Your task to perform on an android device: Add duracell triple a to the cart on newegg.com, then select checkout. Image 0: 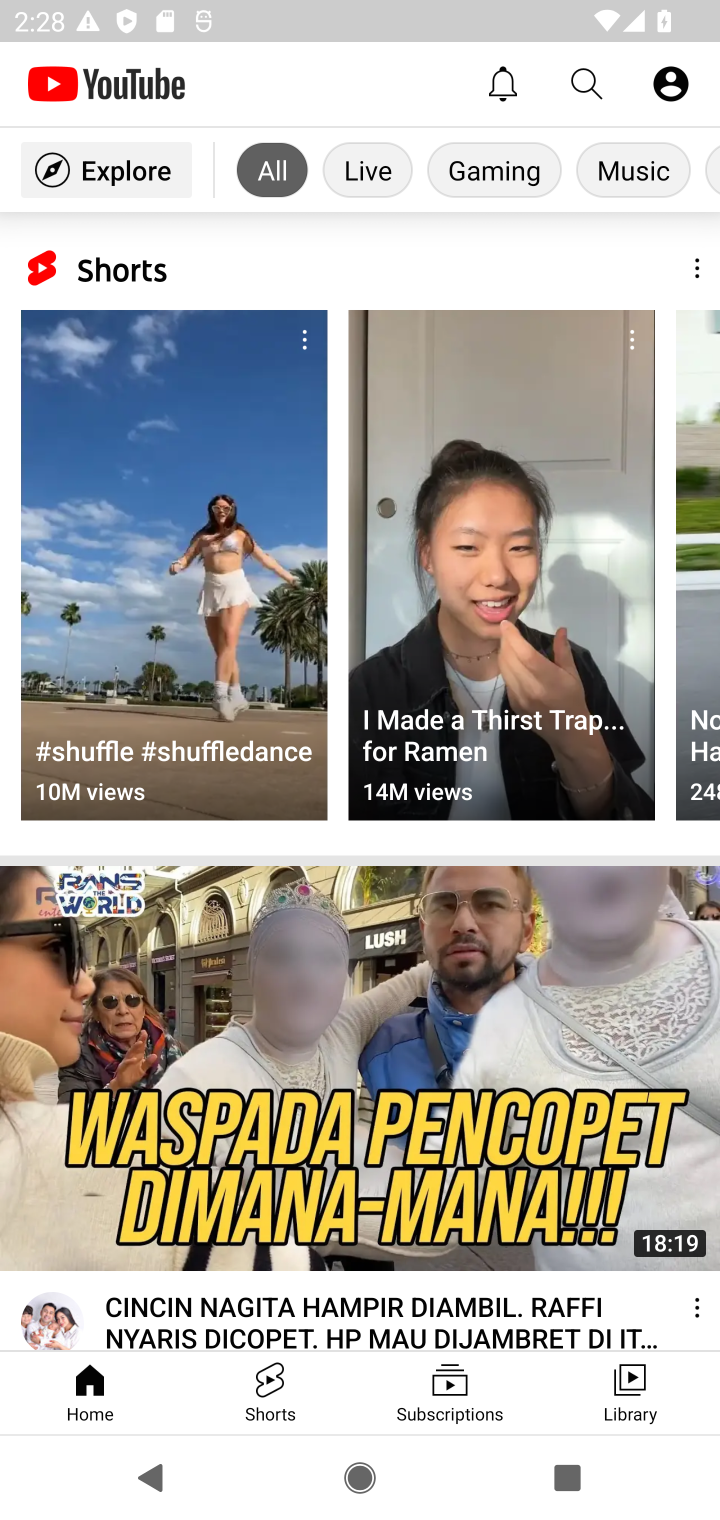
Step 0: press home button
Your task to perform on an android device: Add duracell triple a to the cart on newegg.com, then select checkout. Image 1: 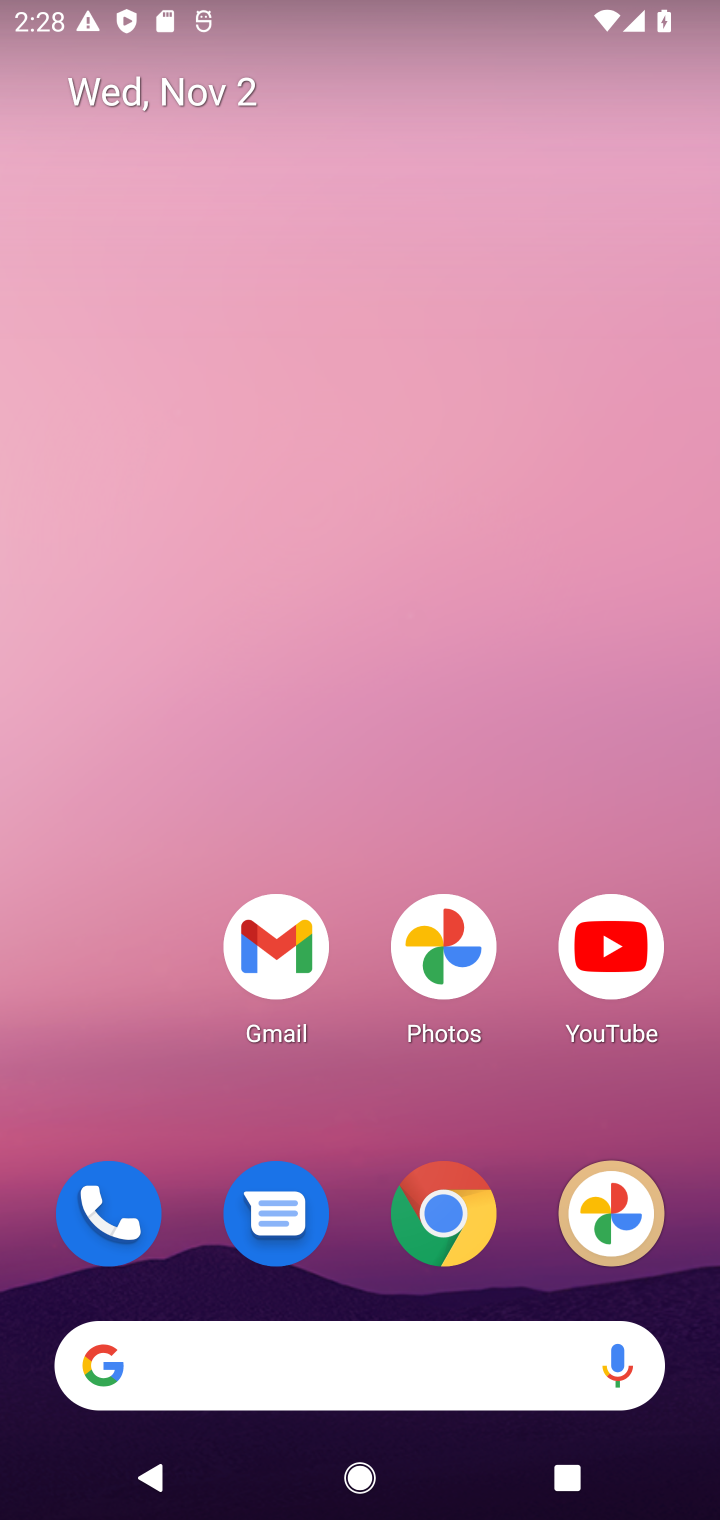
Step 1: click (446, 1224)
Your task to perform on an android device: Add duracell triple a to the cart on newegg.com, then select checkout. Image 2: 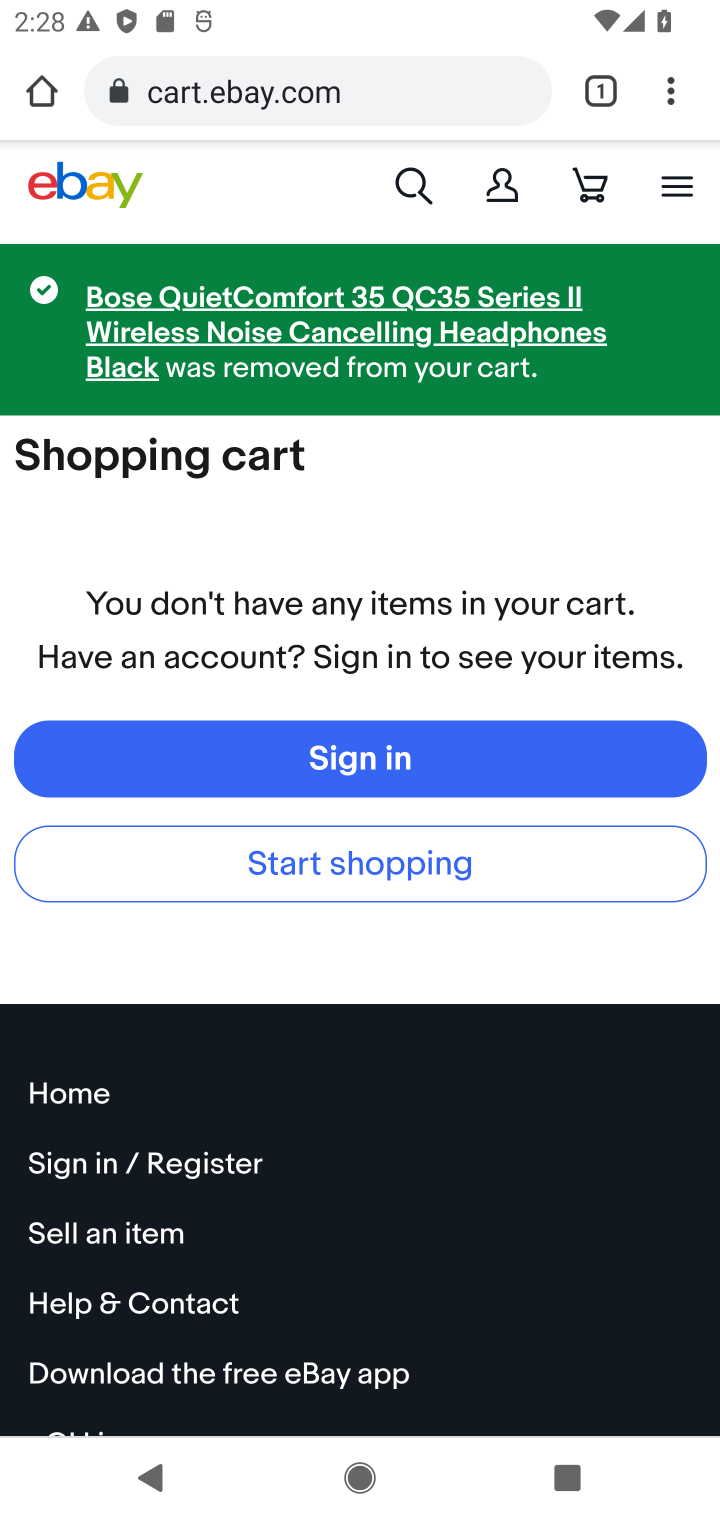
Step 2: click (430, 67)
Your task to perform on an android device: Add duracell triple a to the cart on newegg.com, then select checkout. Image 3: 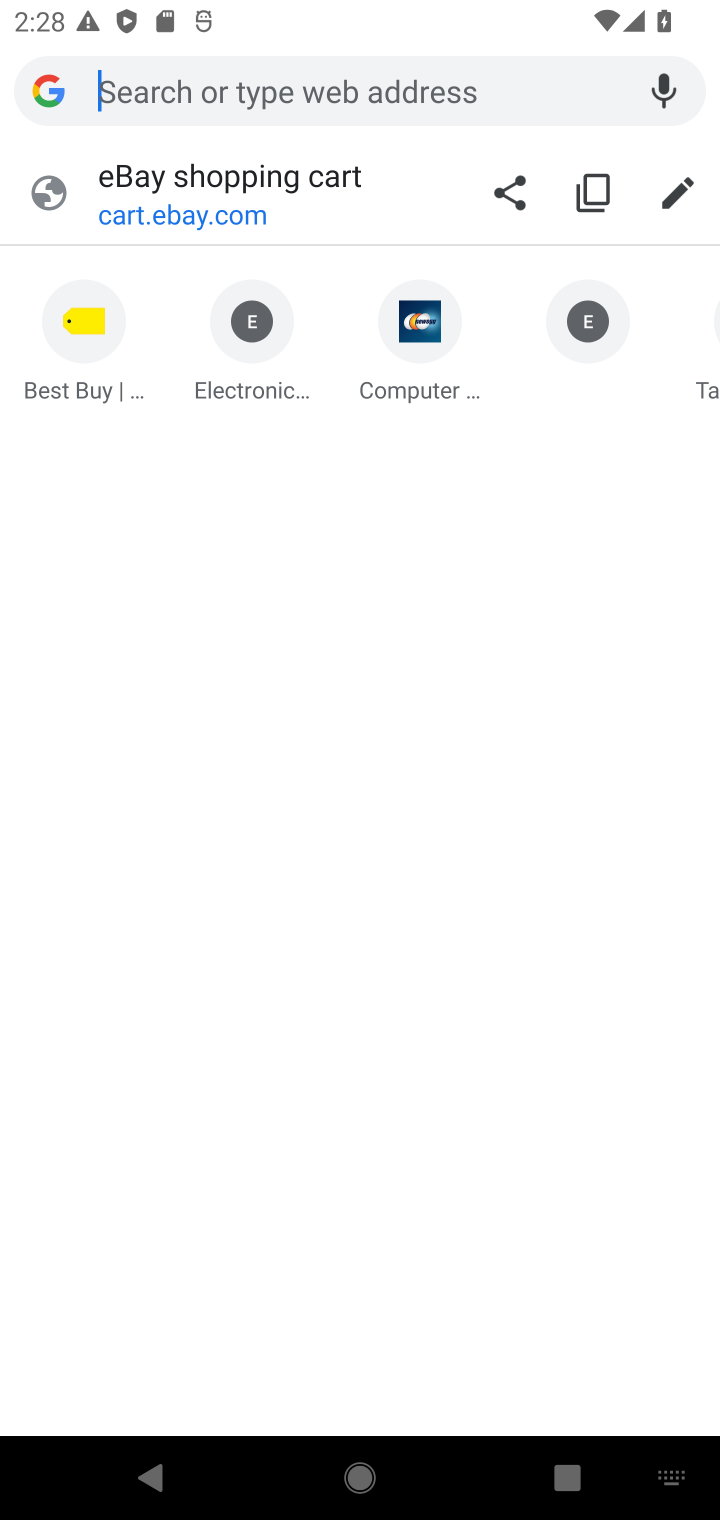
Step 3: type "newegg.com"
Your task to perform on an android device: Add duracell triple a to the cart on newegg.com, then select checkout. Image 4: 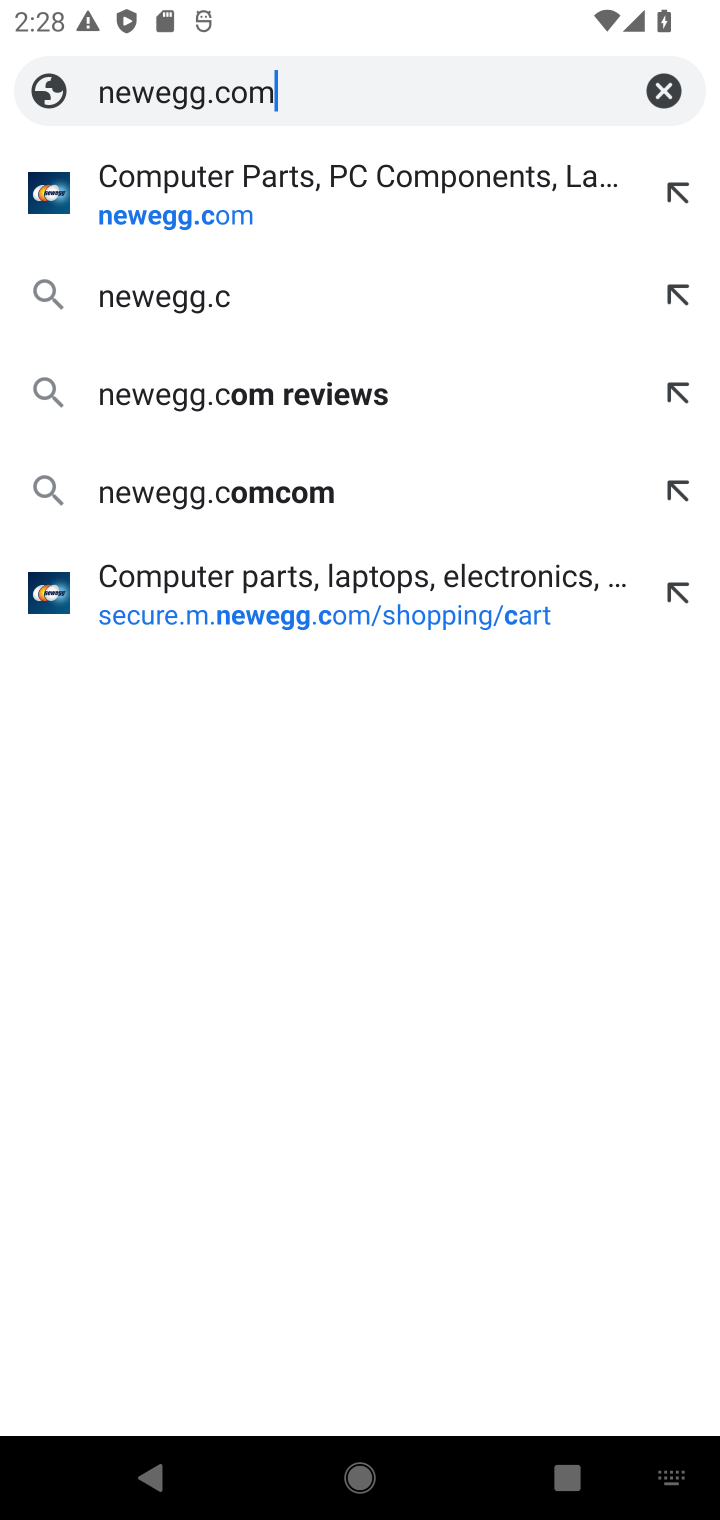
Step 4: press enter
Your task to perform on an android device: Add duracell triple a to the cart on newegg.com, then select checkout. Image 5: 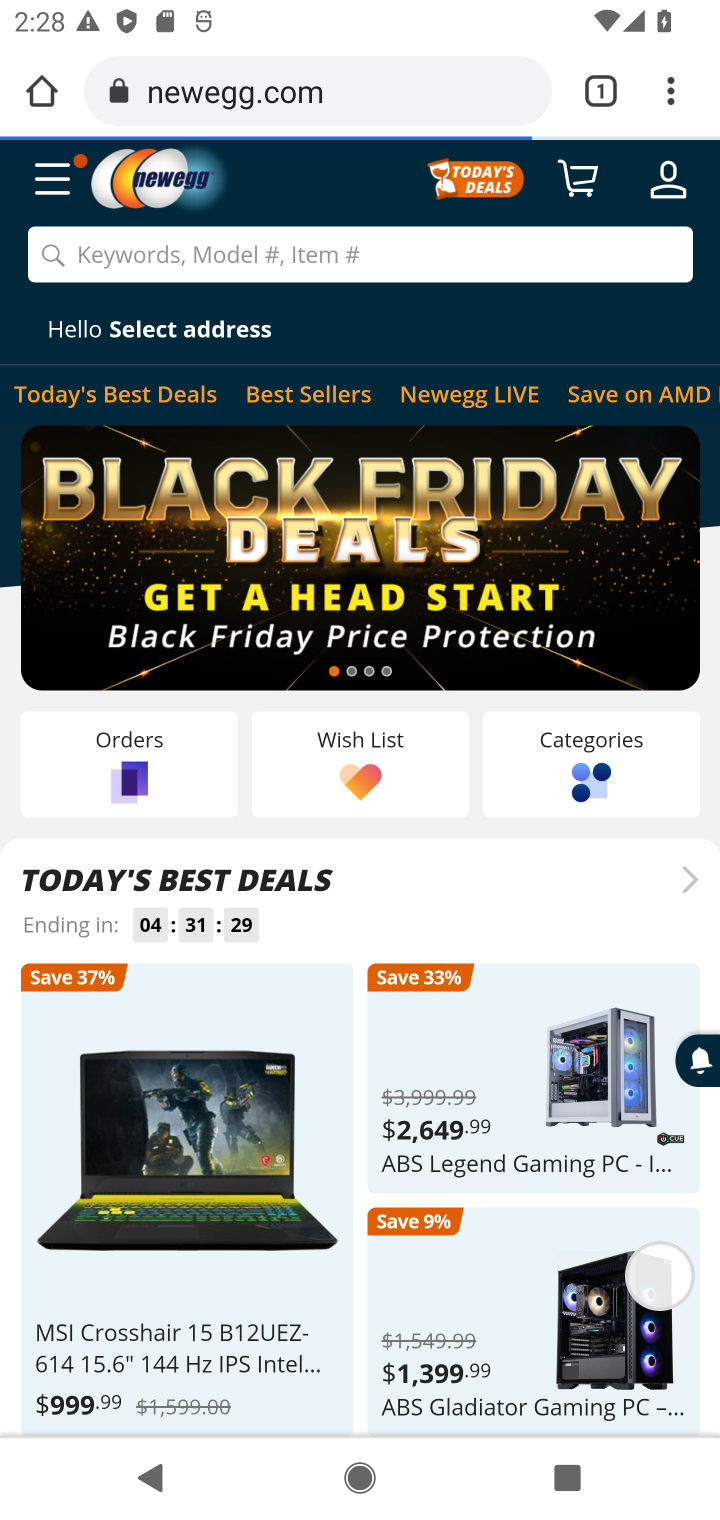
Step 5: click (384, 260)
Your task to perform on an android device: Add duracell triple a to the cart on newegg.com, then select checkout. Image 6: 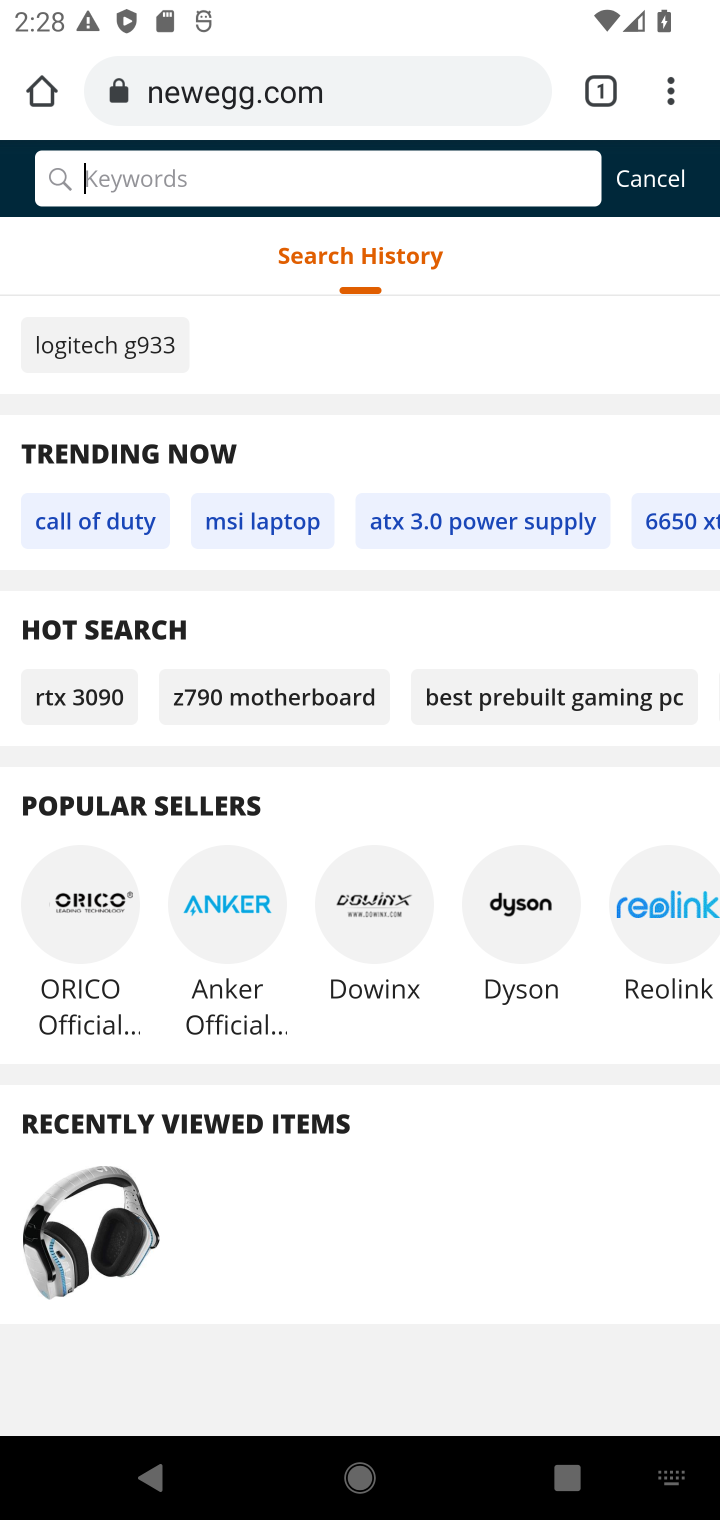
Step 6: type "duracell triple"
Your task to perform on an android device: Add duracell triple a to the cart on newegg.com, then select checkout. Image 7: 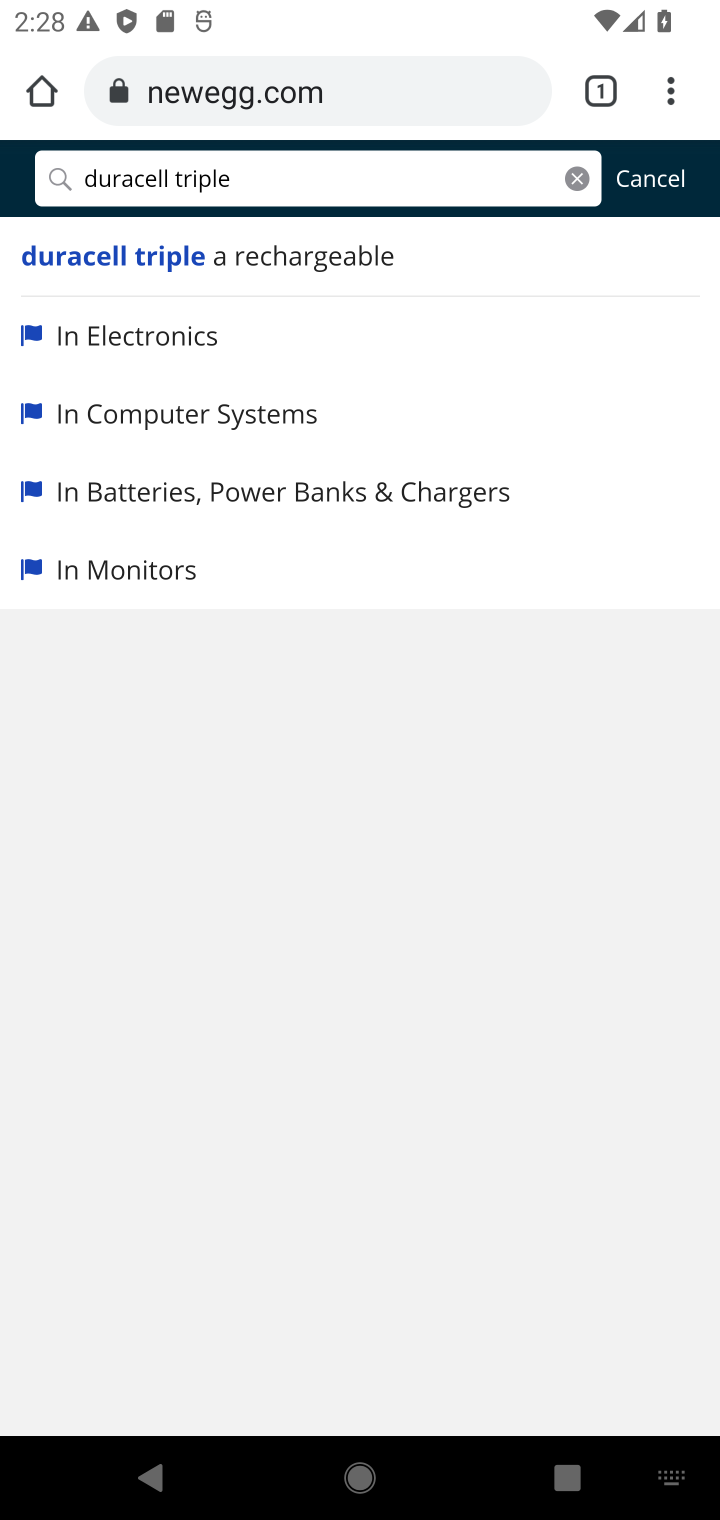
Step 7: type " a"
Your task to perform on an android device: Add duracell triple a to the cart on newegg.com, then select checkout. Image 8: 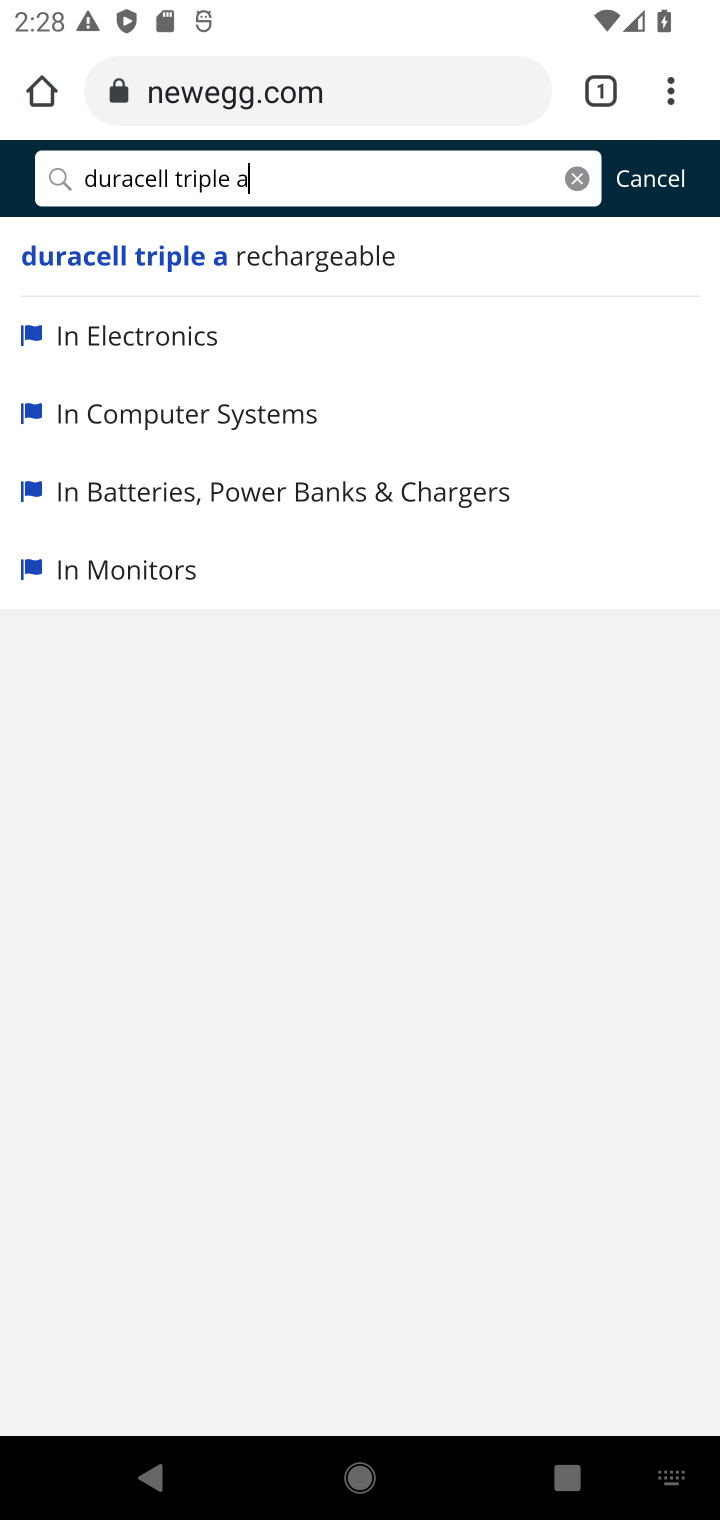
Step 8: press enter
Your task to perform on an android device: Add duracell triple a to the cart on newegg.com, then select checkout. Image 9: 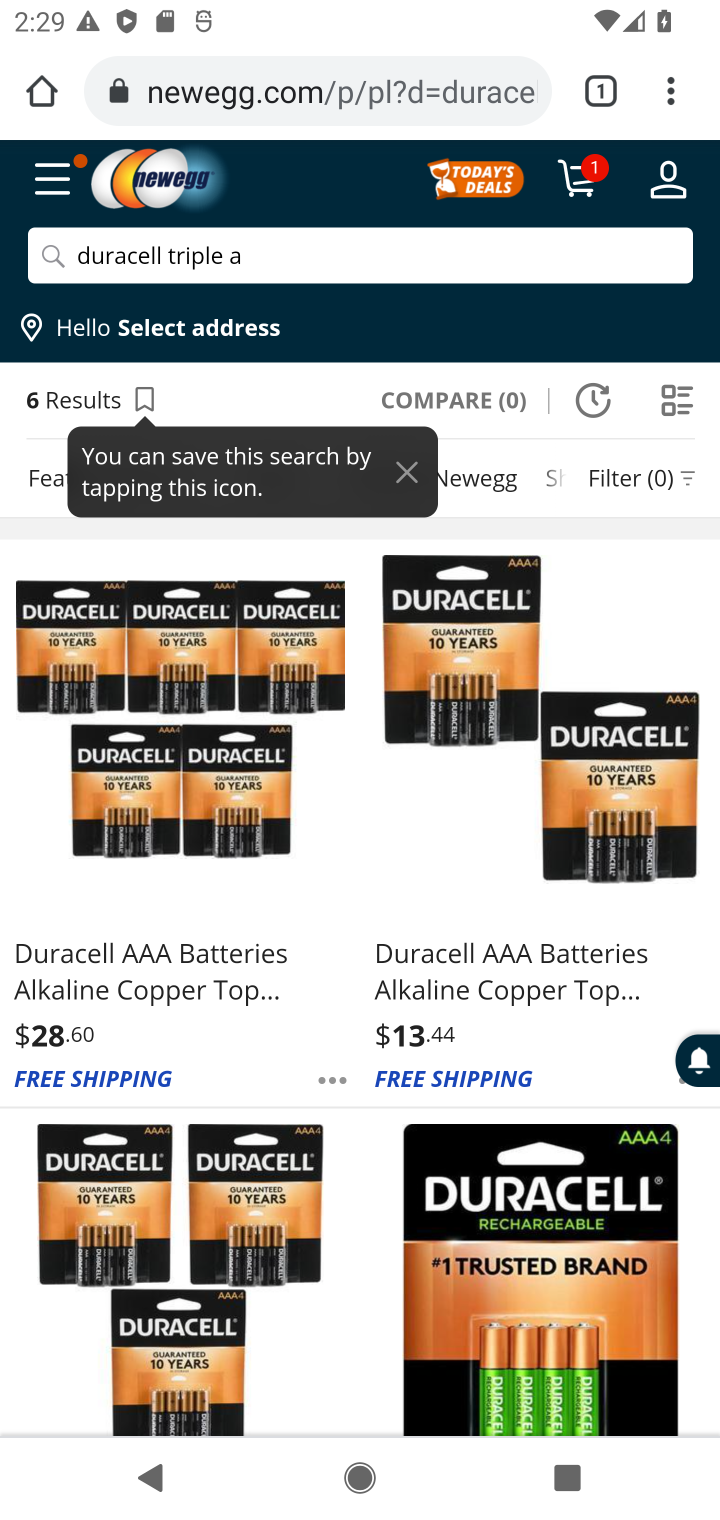
Step 9: click (93, 835)
Your task to perform on an android device: Add duracell triple a to the cart on newegg.com, then select checkout. Image 10: 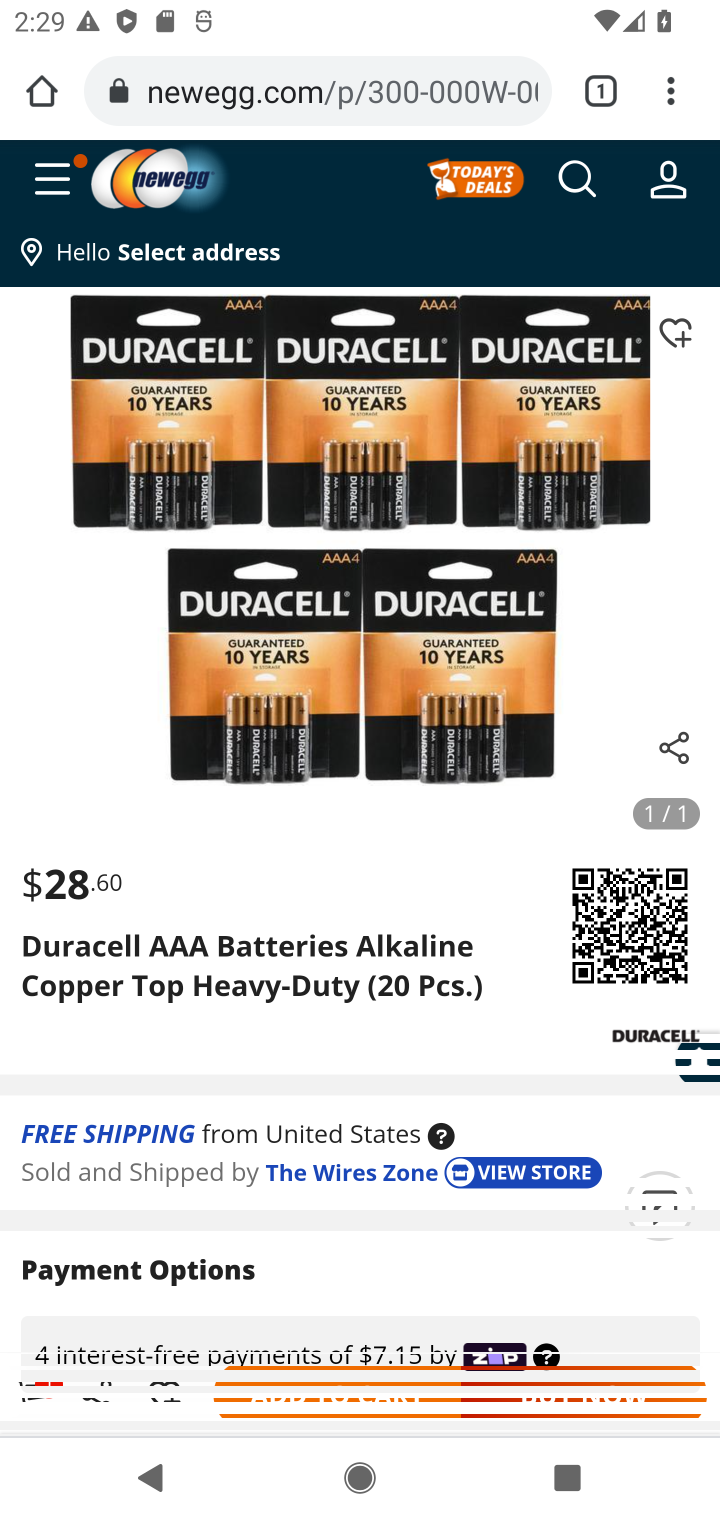
Step 10: click (276, 1400)
Your task to perform on an android device: Add duracell triple a to the cart on newegg.com, then select checkout. Image 11: 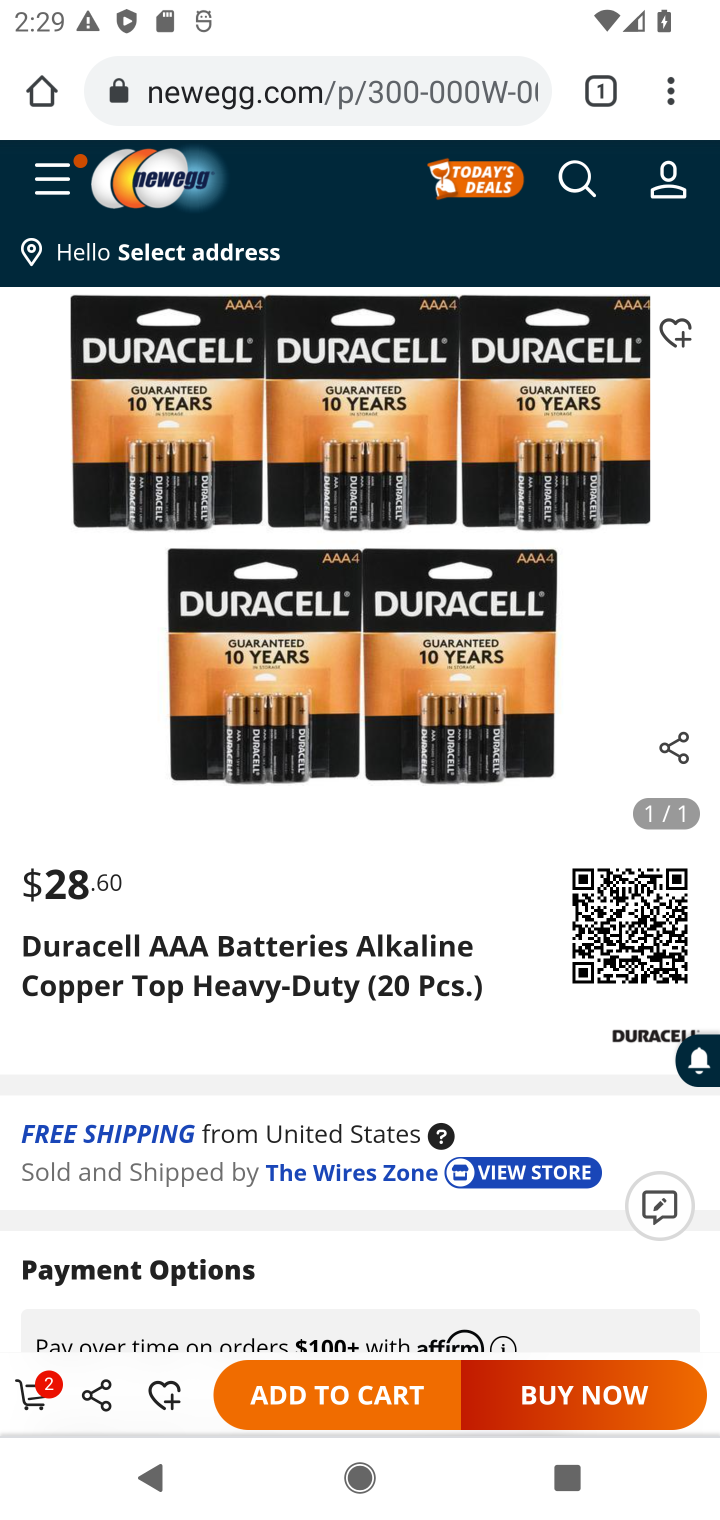
Step 11: click (44, 1389)
Your task to perform on an android device: Add duracell triple a to the cart on newegg.com, then select checkout. Image 12: 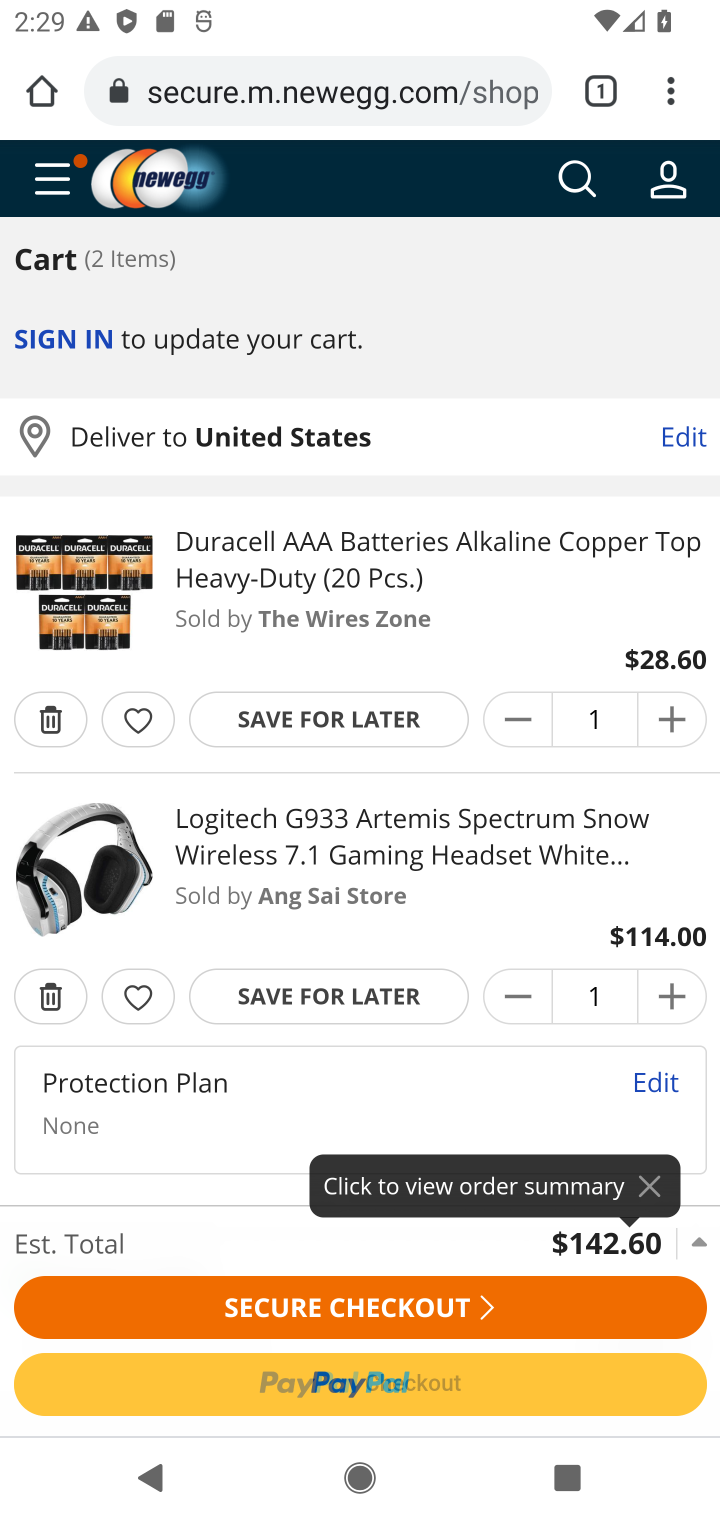
Step 12: click (329, 1303)
Your task to perform on an android device: Add duracell triple a to the cart on newegg.com, then select checkout. Image 13: 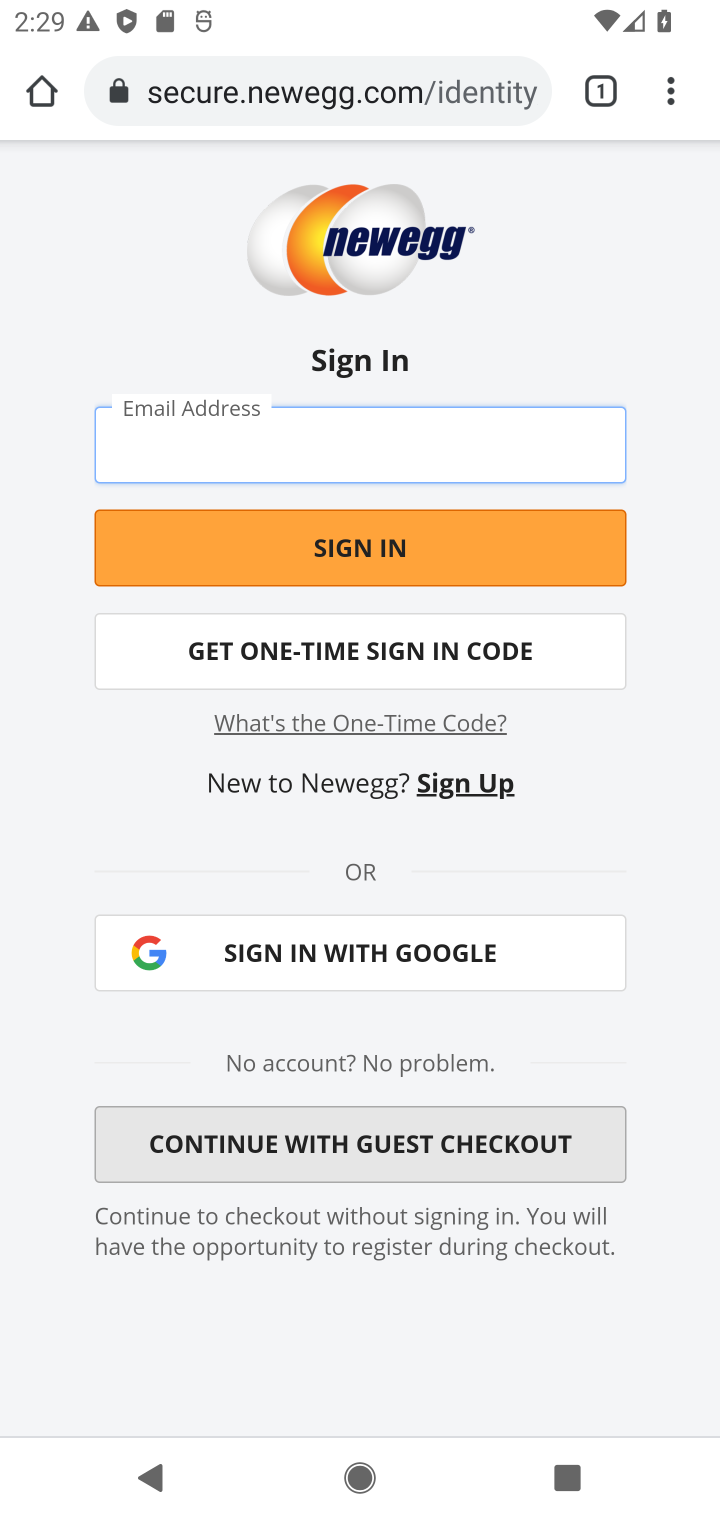
Step 13: task complete